Your task to perform on an android device: toggle airplane mode Image 0: 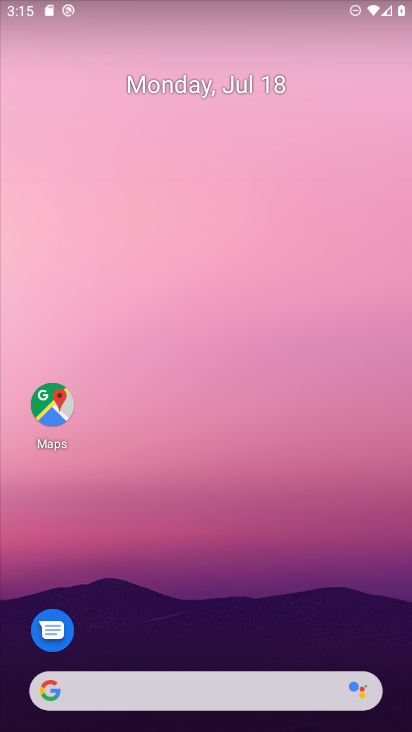
Step 0: drag from (286, 696) to (266, 95)
Your task to perform on an android device: toggle airplane mode Image 1: 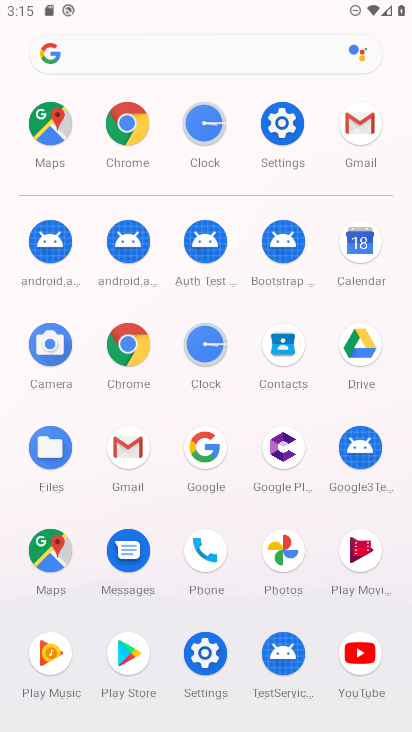
Step 1: click (289, 124)
Your task to perform on an android device: toggle airplane mode Image 2: 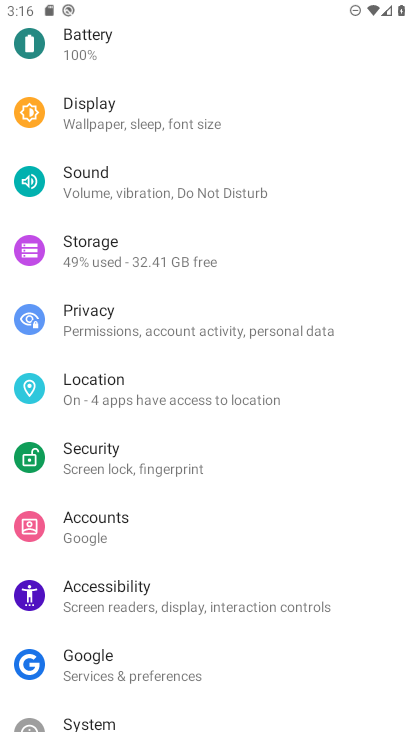
Step 2: drag from (136, 160) to (51, 717)
Your task to perform on an android device: toggle airplane mode Image 3: 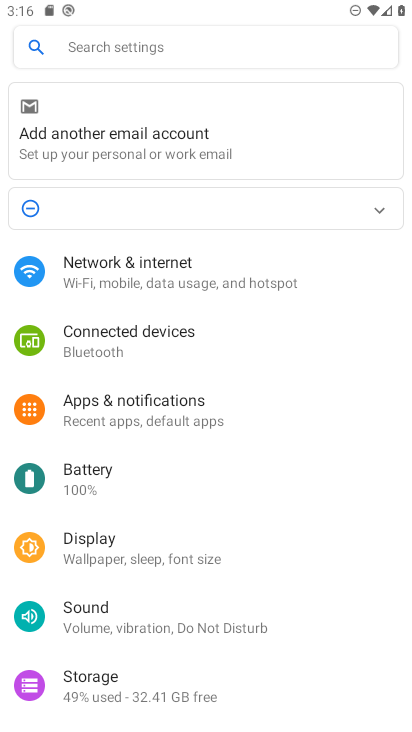
Step 3: click (153, 282)
Your task to perform on an android device: toggle airplane mode Image 4: 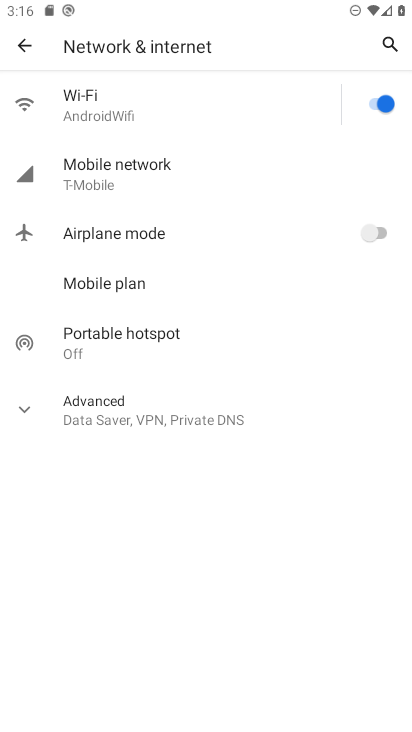
Step 4: click (382, 225)
Your task to perform on an android device: toggle airplane mode Image 5: 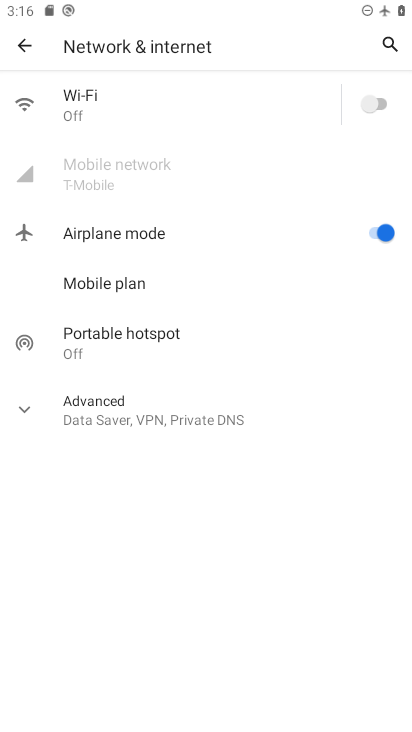
Step 5: task complete